Your task to perform on an android device: turn smart compose on in the gmail app Image 0: 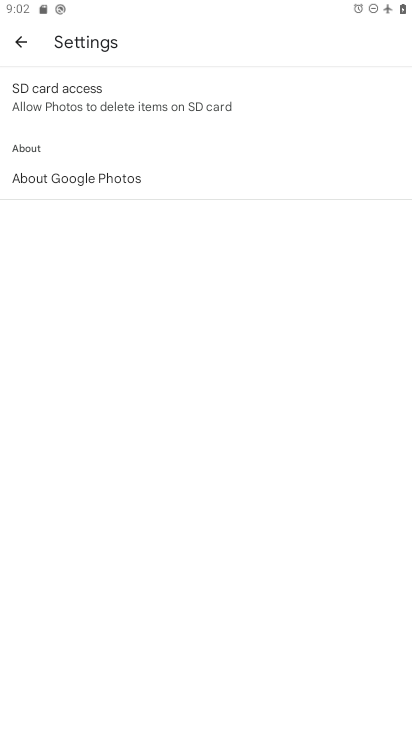
Step 0: press home button
Your task to perform on an android device: turn smart compose on in the gmail app Image 1: 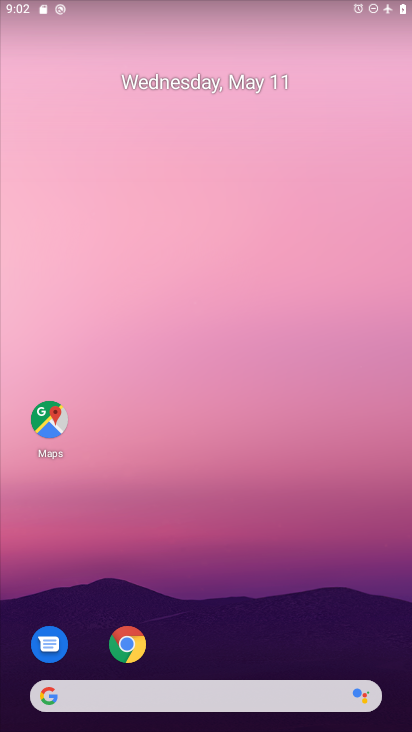
Step 1: drag from (217, 594) to (136, 19)
Your task to perform on an android device: turn smart compose on in the gmail app Image 2: 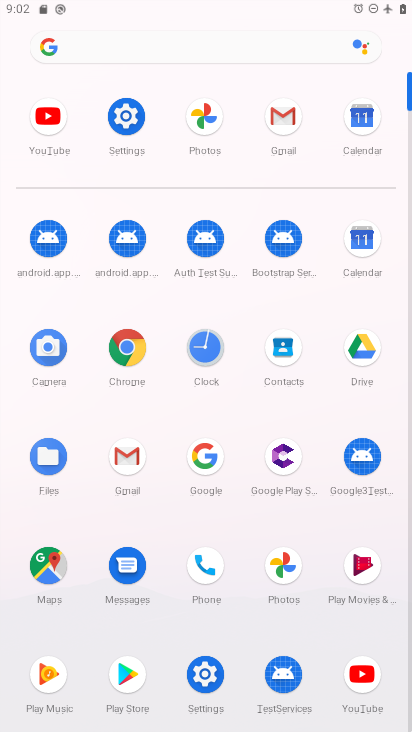
Step 2: click (131, 456)
Your task to perform on an android device: turn smart compose on in the gmail app Image 3: 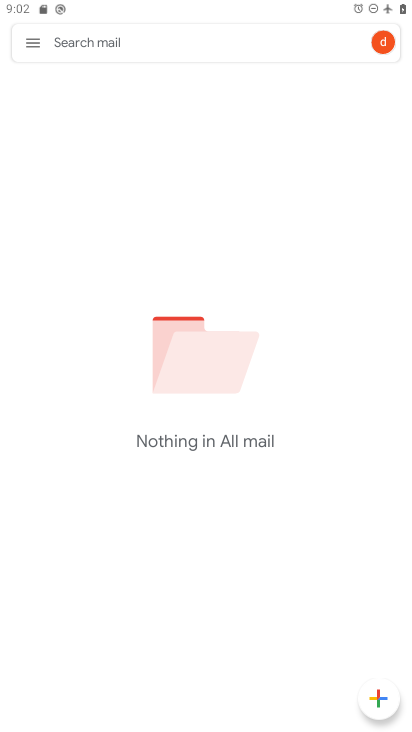
Step 3: click (28, 42)
Your task to perform on an android device: turn smart compose on in the gmail app Image 4: 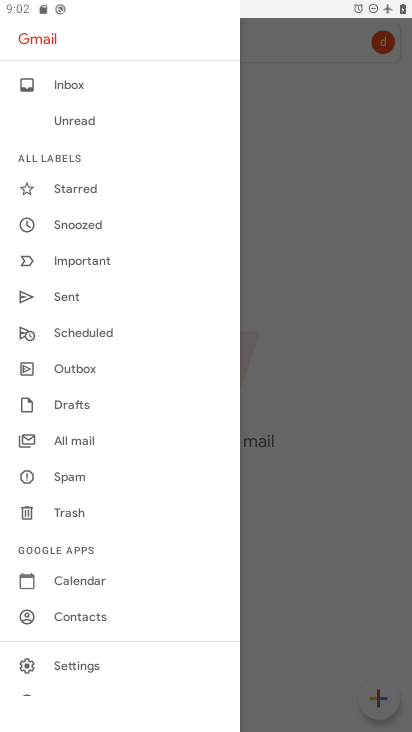
Step 4: click (73, 657)
Your task to perform on an android device: turn smart compose on in the gmail app Image 5: 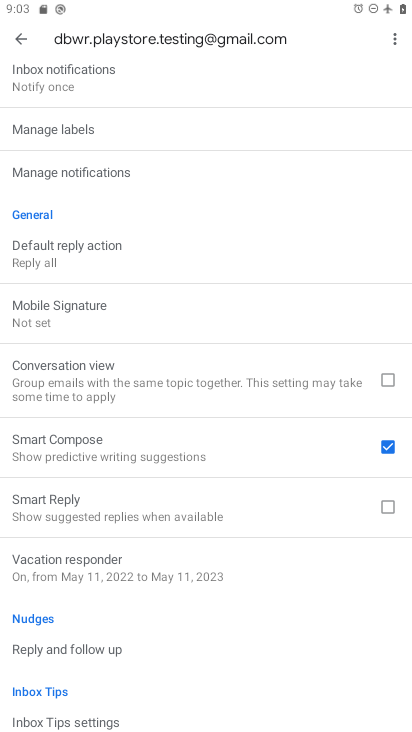
Step 5: task complete